Your task to perform on an android device: Open privacy settings Image 0: 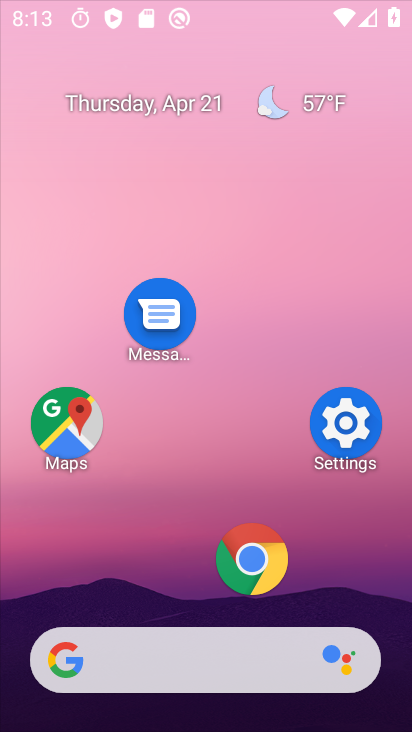
Step 0: drag from (177, 105) to (249, 68)
Your task to perform on an android device: Open privacy settings Image 1: 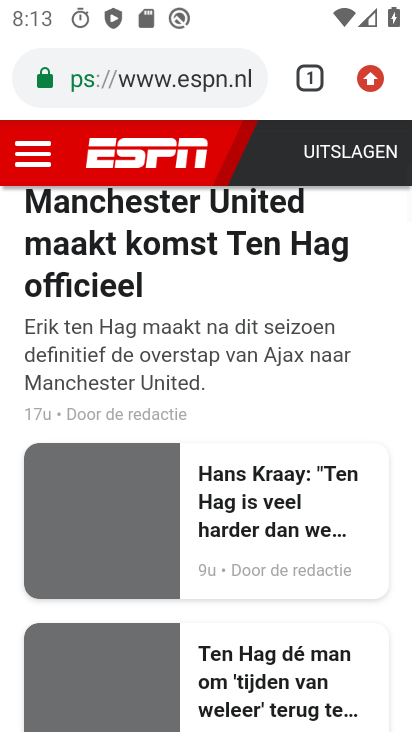
Step 1: press home button
Your task to perform on an android device: Open privacy settings Image 2: 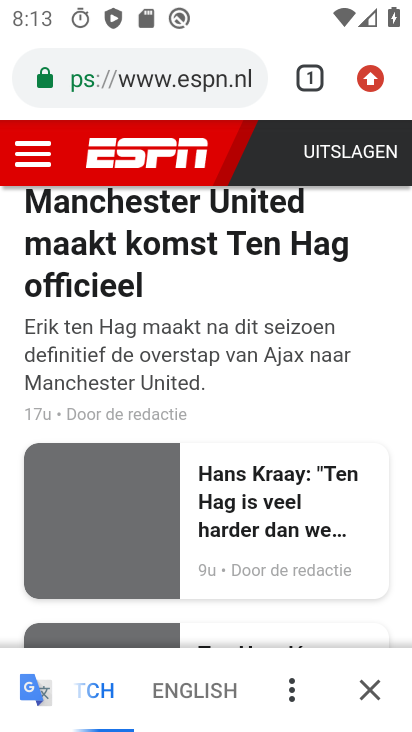
Step 2: press home button
Your task to perform on an android device: Open privacy settings Image 3: 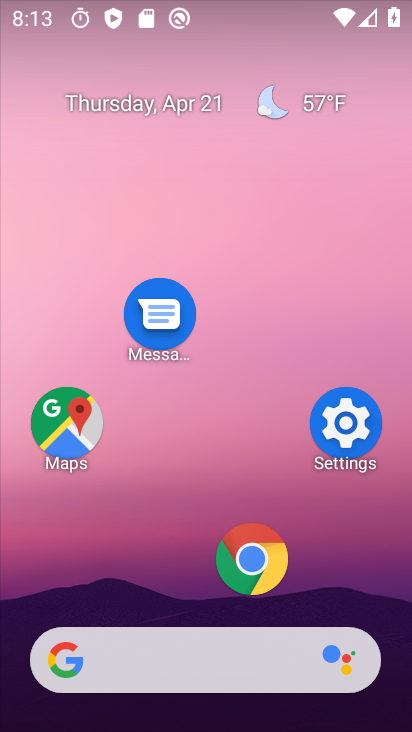
Step 3: drag from (333, 571) to (110, 142)
Your task to perform on an android device: Open privacy settings Image 4: 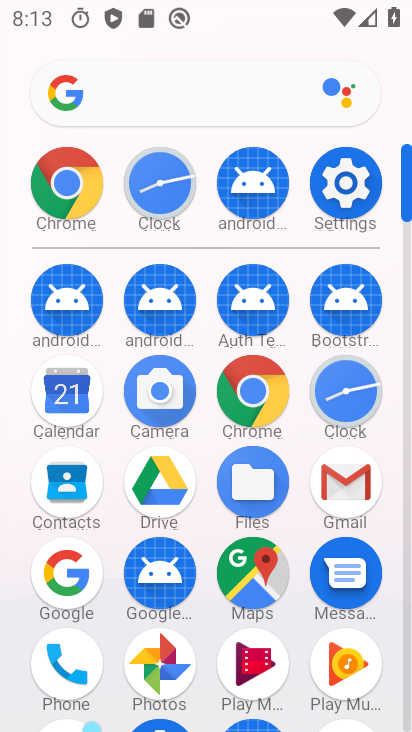
Step 4: click (336, 187)
Your task to perform on an android device: Open privacy settings Image 5: 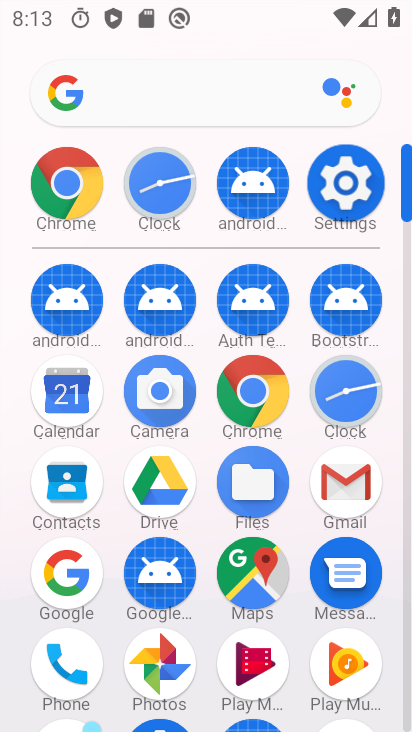
Step 5: click (336, 187)
Your task to perform on an android device: Open privacy settings Image 6: 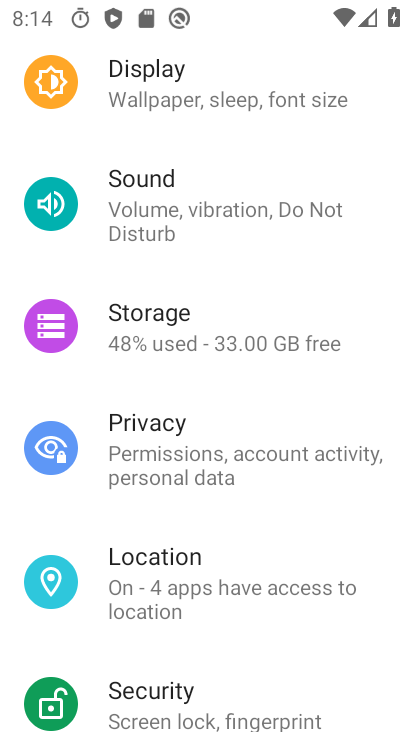
Step 6: drag from (185, 259) to (267, 368)
Your task to perform on an android device: Open privacy settings Image 7: 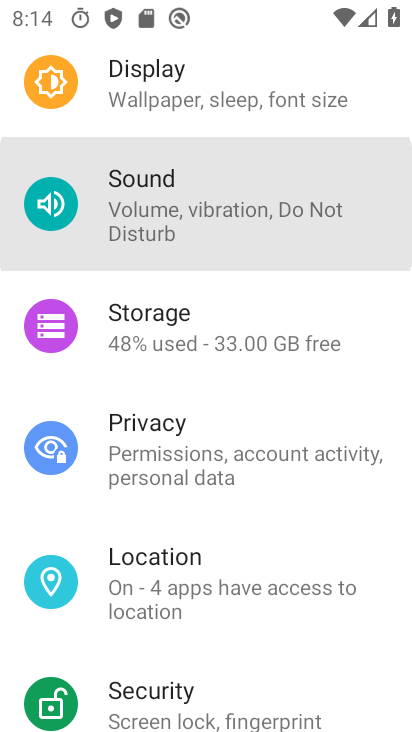
Step 7: drag from (234, 277) to (249, 673)
Your task to perform on an android device: Open privacy settings Image 8: 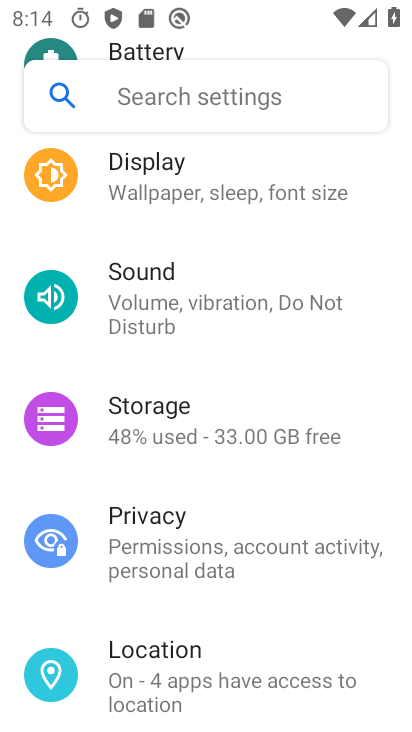
Step 8: drag from (170, 517) to (327, 661)
Your task to perform on an android device: Open privacy settings Image 9: 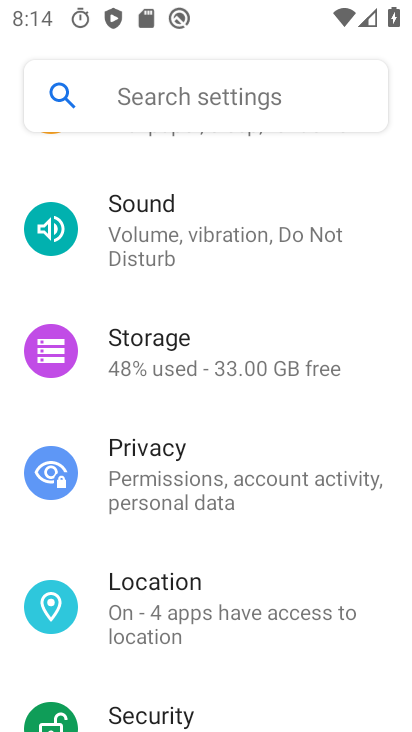
Step 9: drag from (236, 403) to (245, 686)
Your task to perform on an android device: Open privacy settings Image 10: 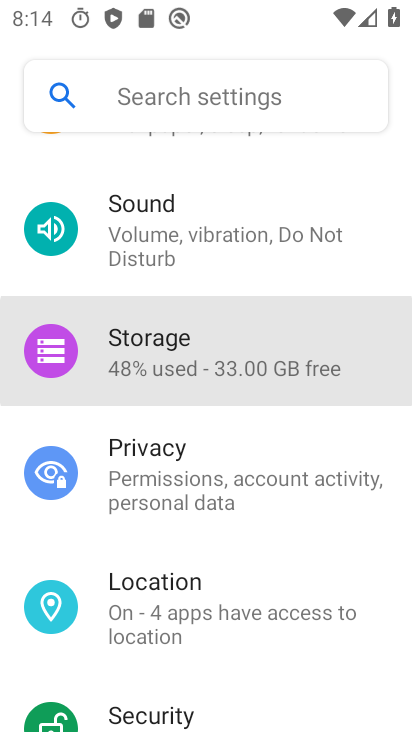
Step 10: drag from (207, 403) to (101, 709)
Your task to perform on an android device: Open privacy settings Image 11: 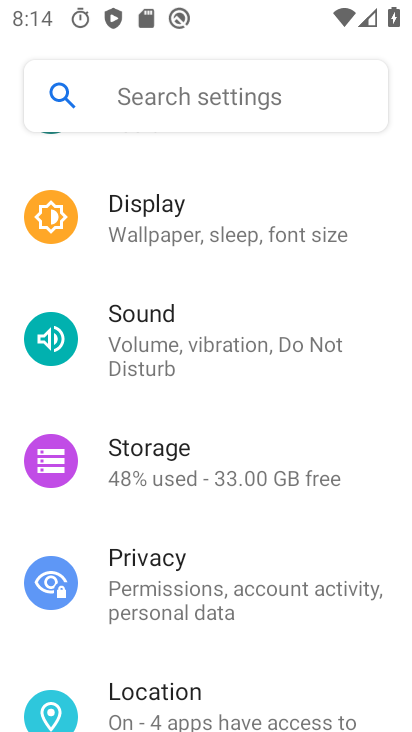
Step 11: click (232, 550)
Your task to perform on an android device: Open privacy settings Image 12: 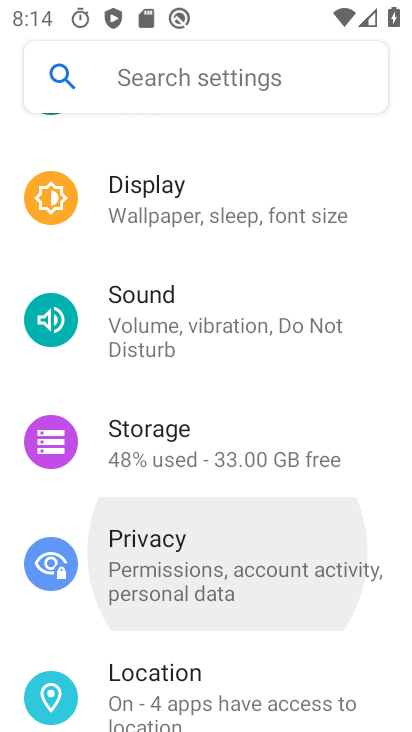
Step 12: click (267, 634)
Your task to perform on an android device: Open privacy settings Image 13: 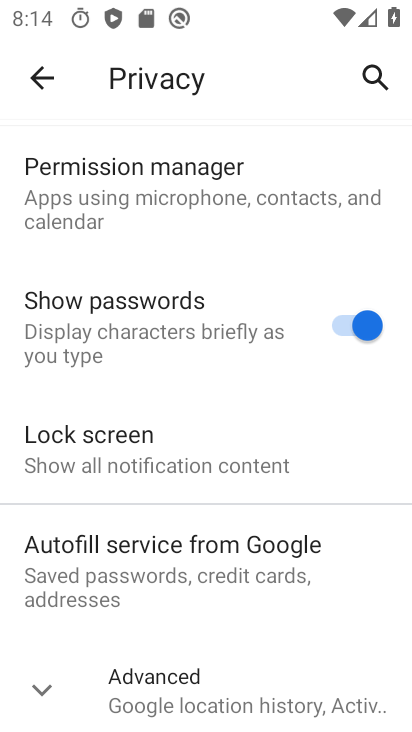
Step 13: task complete